Your task to perform on an android device: turn off notifications in google photos Image 0: 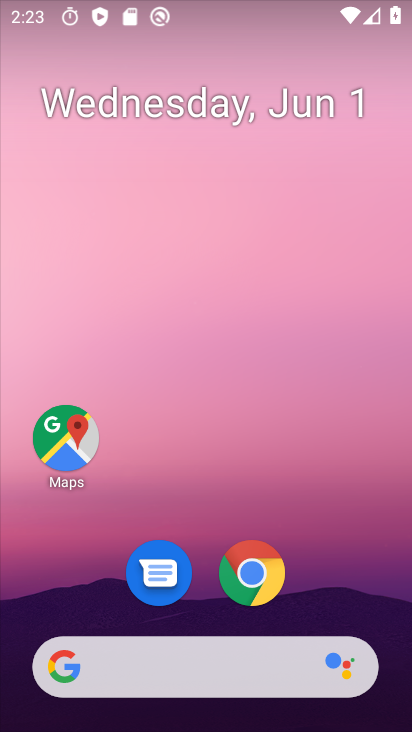
Step 0: drag from (207, 607) to (207, 120)
Your task to perform on an android device: turn off notifications in google photos Image 1: 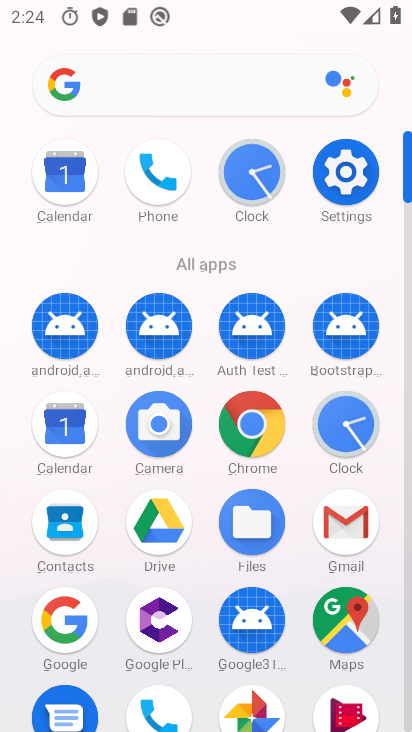
Step 1: drag from (197, 542) to (205, 219)
Your task to perform on an android device: turn off notifications in google photos Image 2: 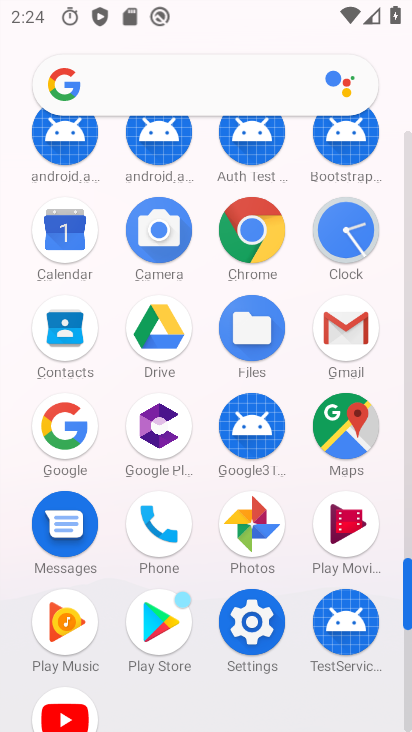
Step 2: click (249, 518)
Your task to perform on an android device: turn off notifications in google photos Image 3: 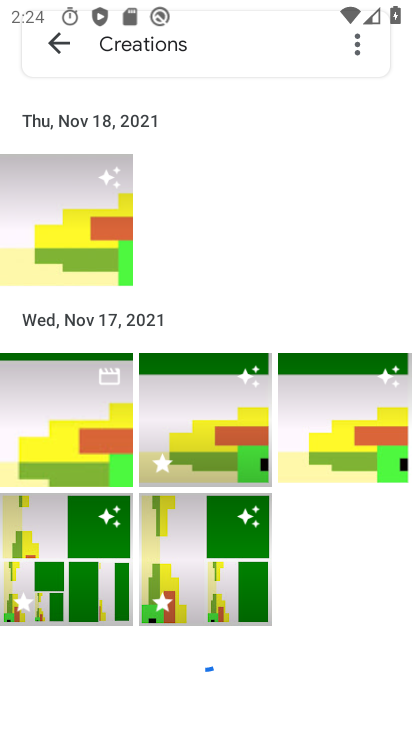
Step 3: click (50, 47)
Your task to perform on an android device: turn off notifications in google photos Image 4: 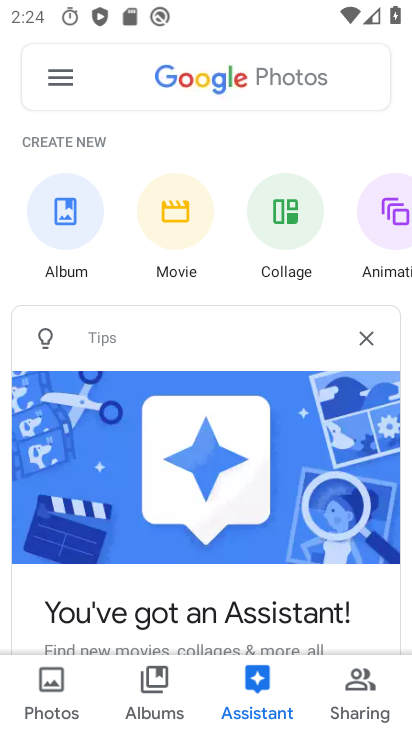
Step 4: click (56, 67)
Your task to perform on an android device: turn off notifications in google photos Image 5: 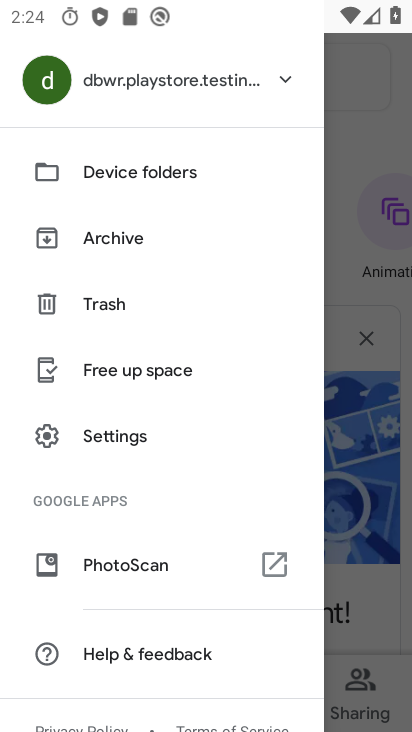
Step 5: drag from (160, 587) to (178, 375)
Your task to perform on an android device: turn off notifications in google photos Image 6: 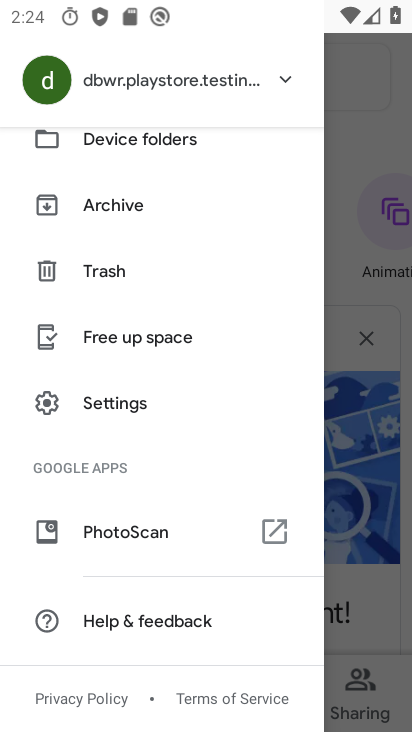
Step 6: click (133, 414)
Your task to perform on an android device: turn off notifications in google photos Image 7: 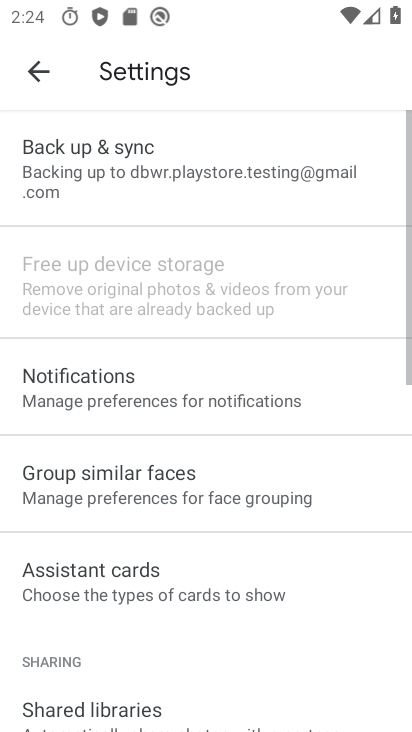
Step 7: drag from (195, 644) to (221, 320)
Your task to perform on an android device: turn off notifications in google photos Image 8: 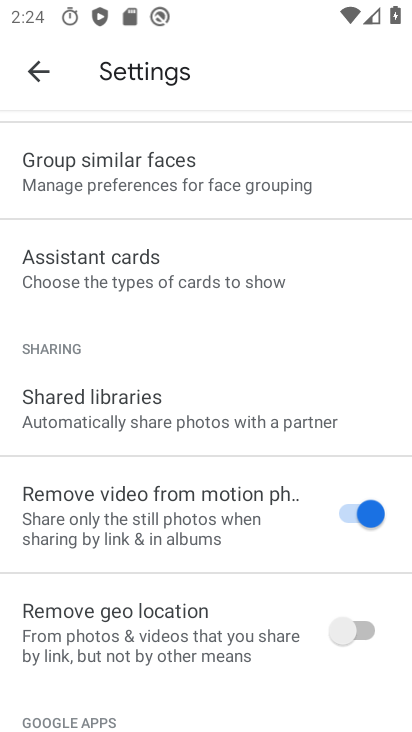
Step 8: drag from (193, 240) to (179, 501)
Your task to perform on an android device: turn off notifications in google photos Image 9: 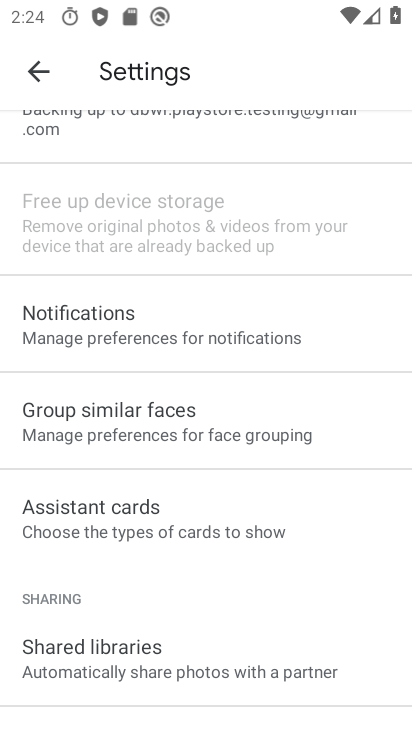
Step 9: click (145, 337)
Your task to perform on an android device: turn off notifications in google photos Image 10: 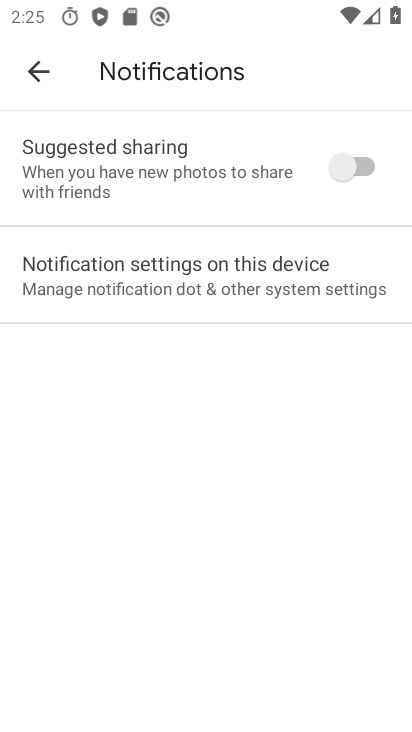
Step 10: click (143, 274)
Your task to perform on an android device: turn off notifications in google photos Image 11: 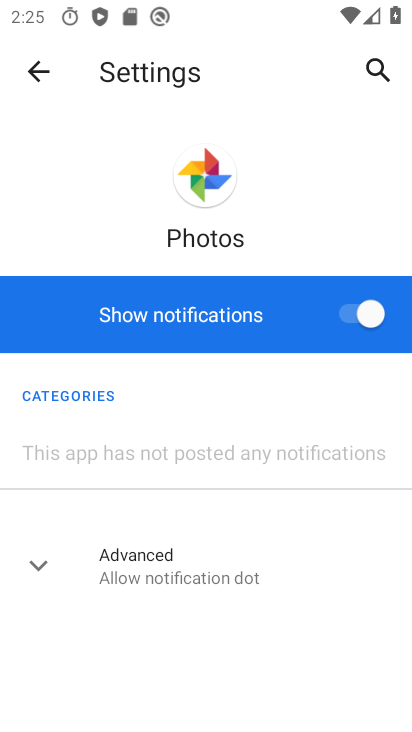
Step 11: click (344, 308)
Your task to perform on an android device: turn off notifications in google photos Image 12: 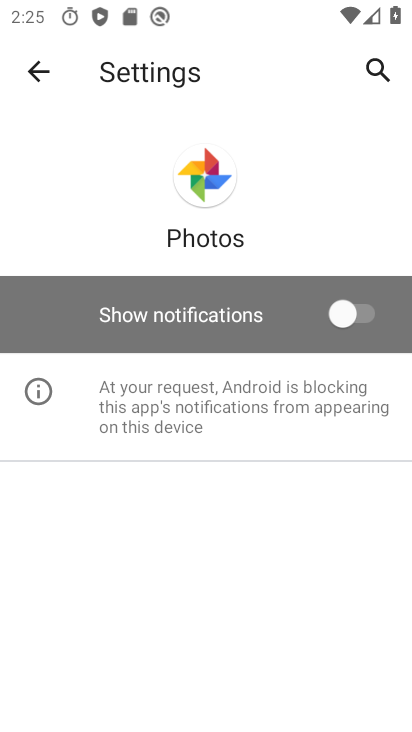
Step 12: task complete